Your task to perform on an android device: stop showing notifications on the lock screen Image 0: 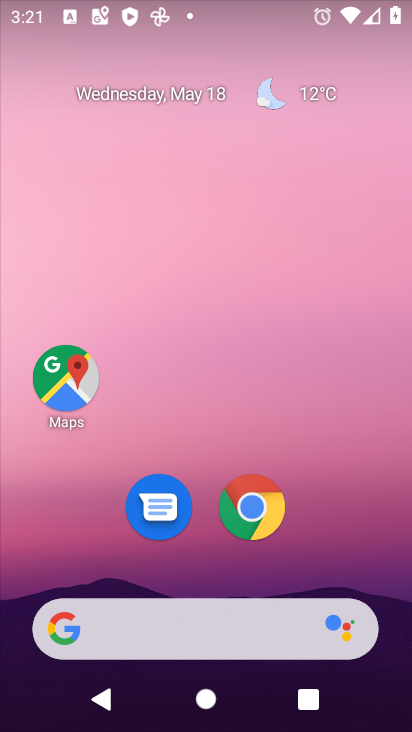
Step 0: drag from (391, 593) to (300, 117)
Your task to perform on an android device: stop showing notifications on the lock screen Image 1: 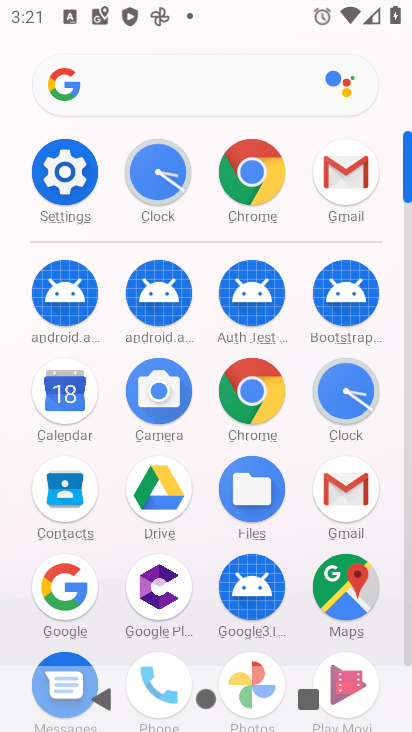
Step 1: click (407, 644)
Your task to perform on an android device: stop showing notifications on the lock screen Image 2: 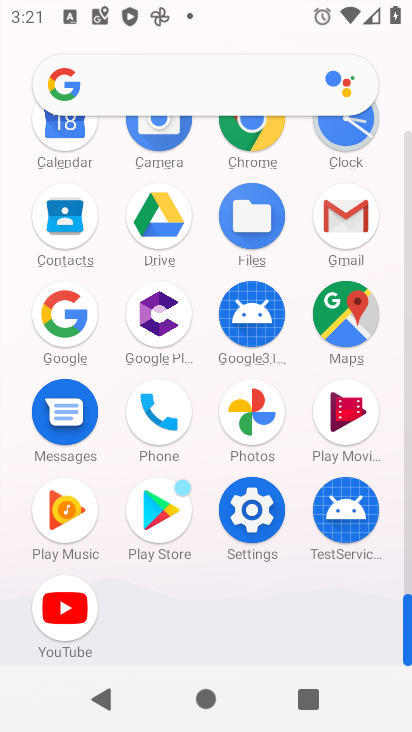
Step 2: click (251, 508)
Your task to perform on an android device: stop showing notifications on the lock screen Image 3: 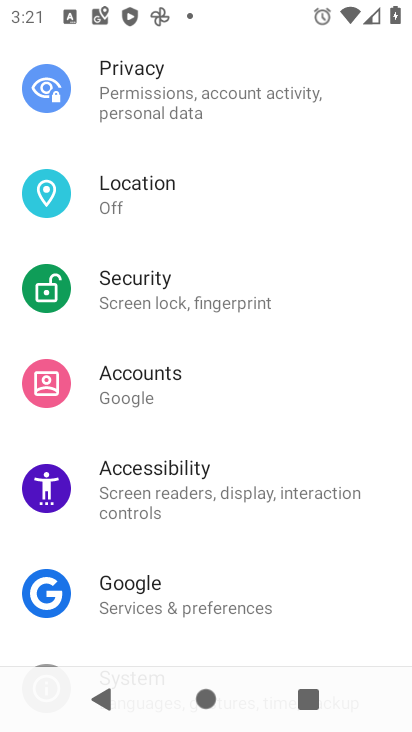
Step 3: drag from (385, 203) to (355, 491)
Your task to perform on an android device: stop showing notifications on the lock screen Image 4: 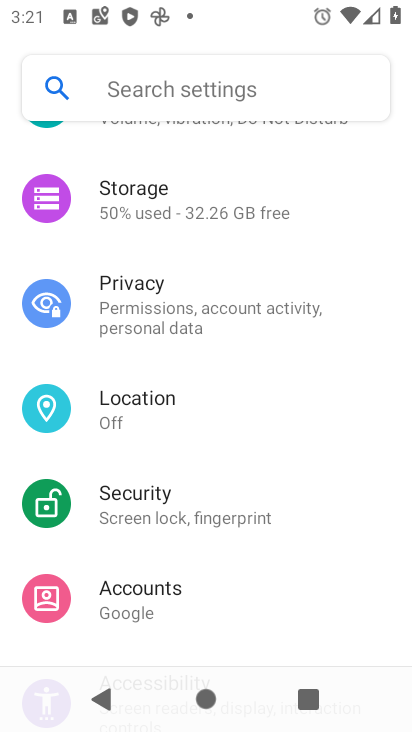
Step 4: drag from (344, 263) to (321, 521)
Your task to perform on an android device: stop showing notifications on the lock screen Image 5: 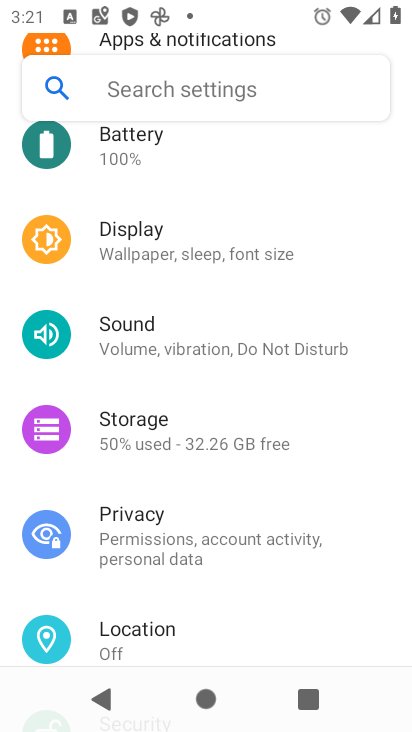
Step 5: drag from (320, 214) to (322, 479)
Your task to perform on an android device: stop showing notifications on the lock screen Image 6: 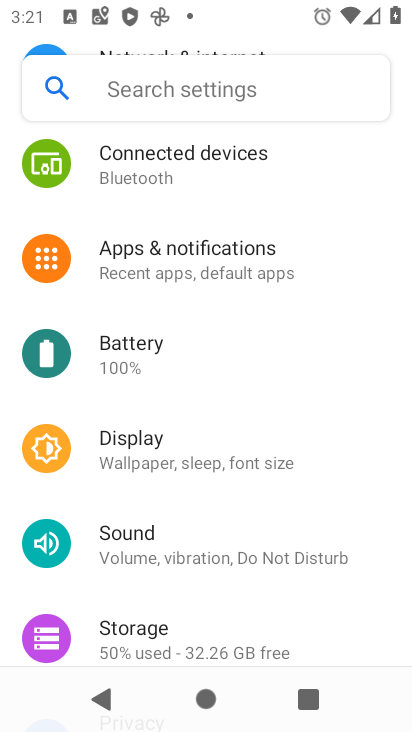
Step 6: click (151, 261)
Your task to perform on an android device: stop showing notifications on the lock screen Image 7: 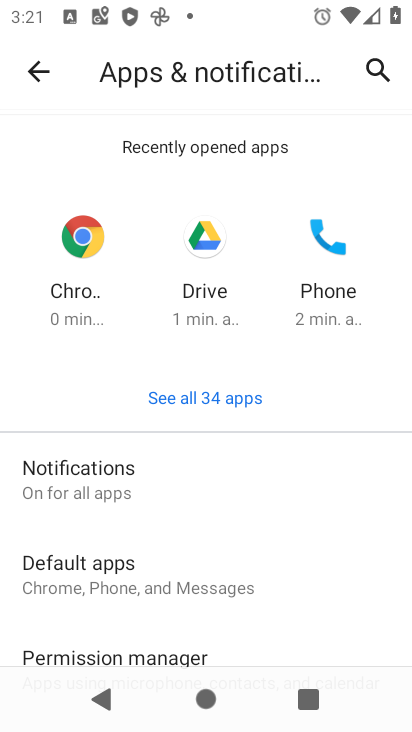
Step 7: click (98, 482)
Your task to perform on an android device: stop showing notifications on the lock screen Image 8: 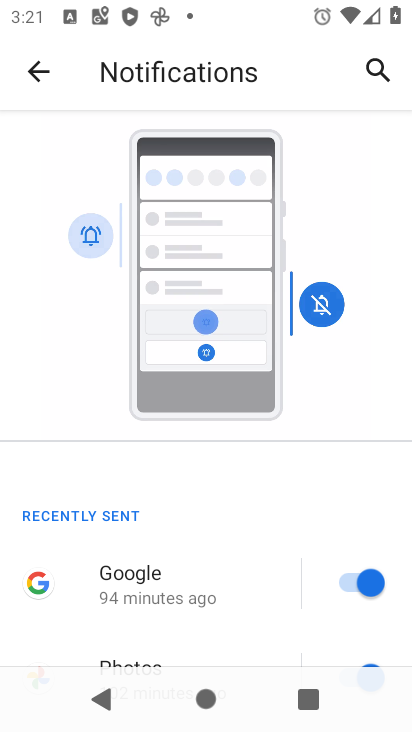
Step 8: drag from (298, 600) to (243, 198)
Your task to perform on an android device: stop showing notifications on the lock screen Image 9: 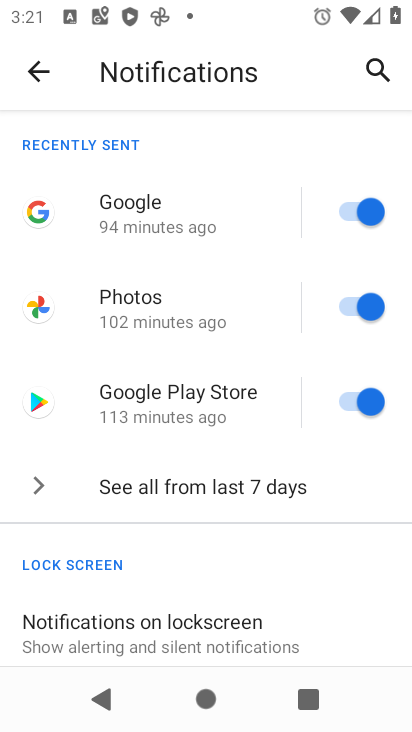
Step 9: drag from (277, 574) to (263, 102)
Your task to perform on an android device: stop showing notifications on the lock screen Image 10: 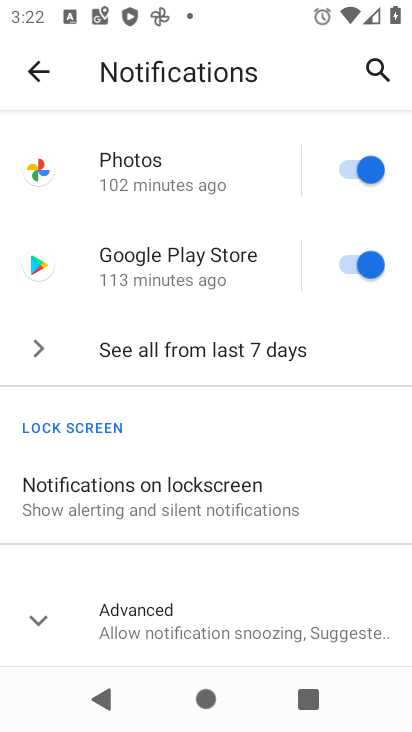
Step 10: click (112, 500)
Your task to perform on an android device: stop showing notifications on the lock screen Image 11: 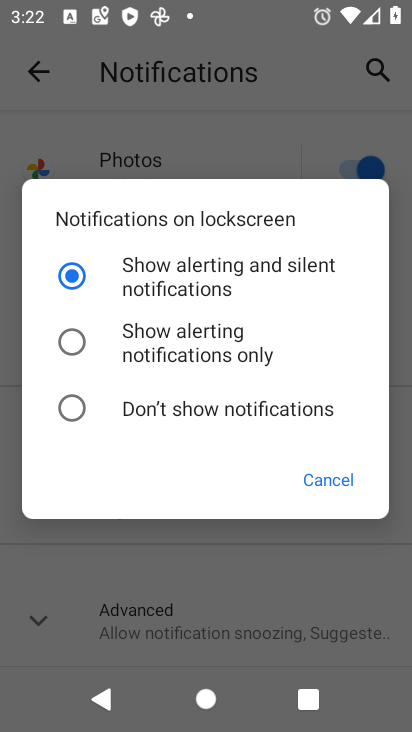
Step 11: click (73, 408)
Your task to perform on an android device: stop showing notifications on the lock screen Image 12: 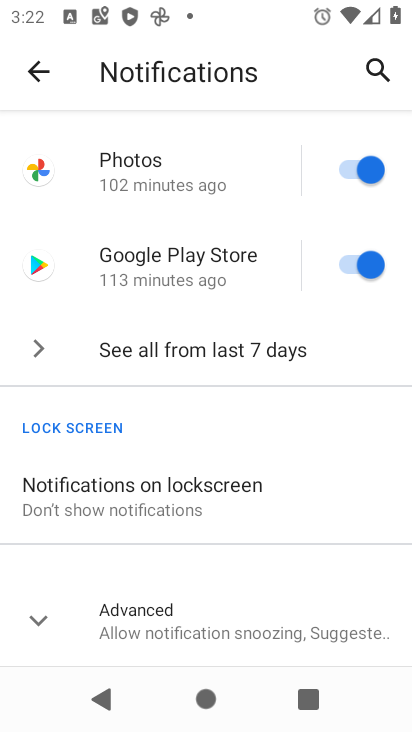
Step 12: task complete